Your task to perform on an android device: toggle wifi Image 0: 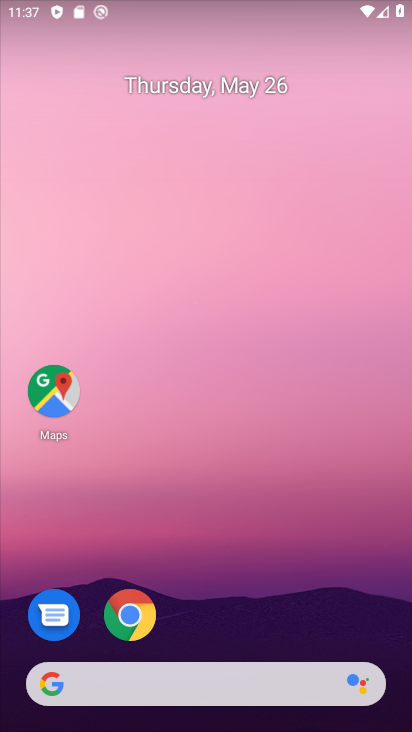
Step 0: drag from (178, 650) to (322, 99)
Your task to perform on an android device: toggle wifi Image 1: 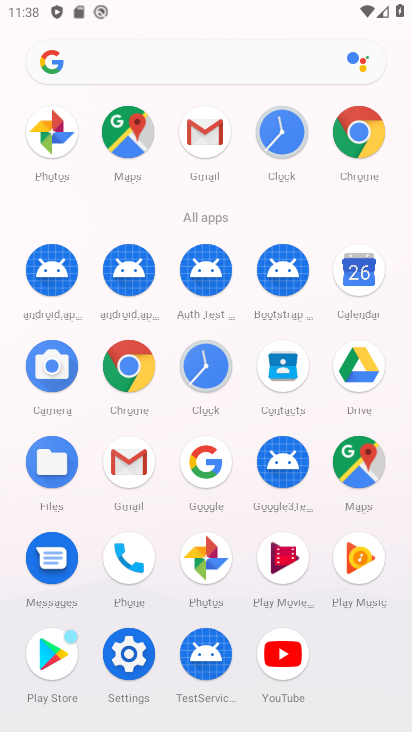
Step 1: click (122, 654)
Your task to perform on an android device: toggle wifi Image 2: 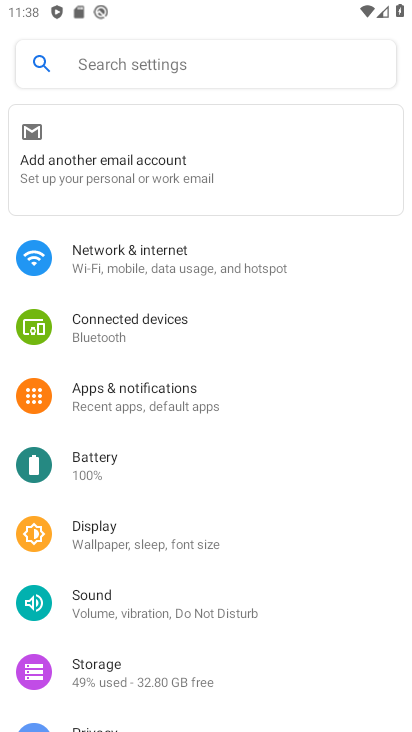
Step 2: click (211, 273)
Your task to perform on an android device: toggle wifi Image 3: 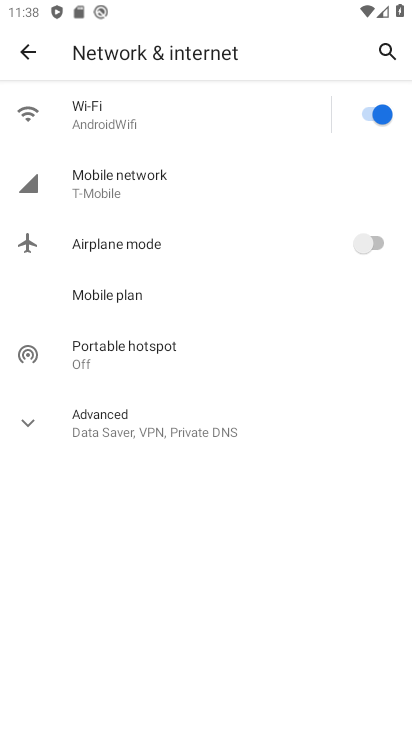
Step 3: click (366, 106)
Your task to perform on an android device: toggle wifi Image 4: 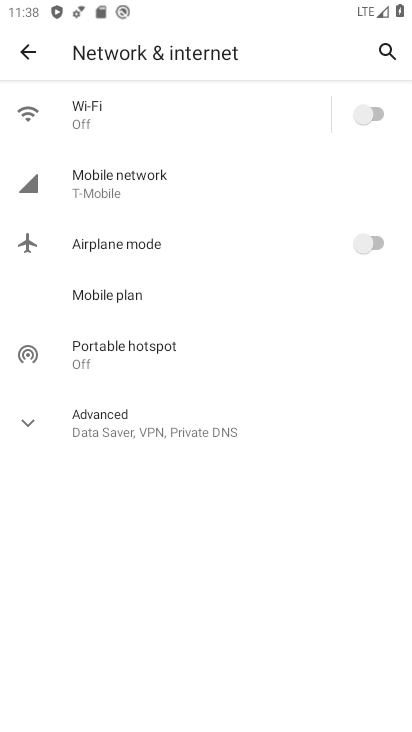
Step 4: task complete